Your task to perform on an android device: open chrome privacy settings Image 0: 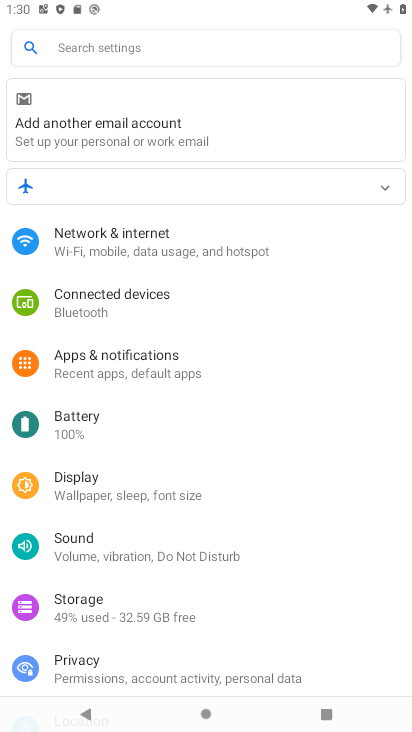
Step 0: press home button
Your task to perform on an android device: open chrome privacy settings Image 1: 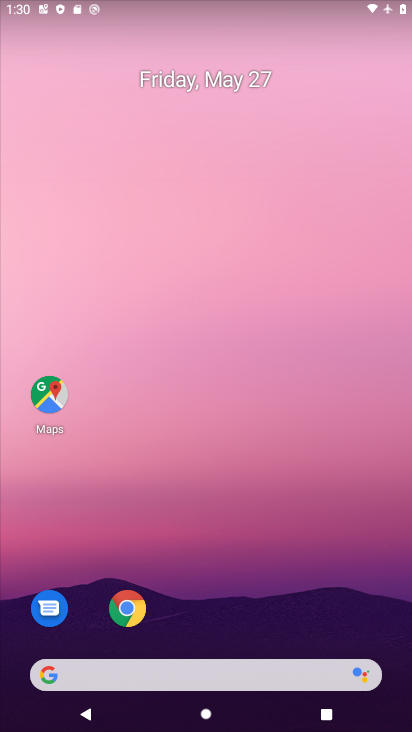
Step 1: drag from (166, 671) to (303, 154)
Your task to perform on an android device: open chrome privacy settings Image 2: 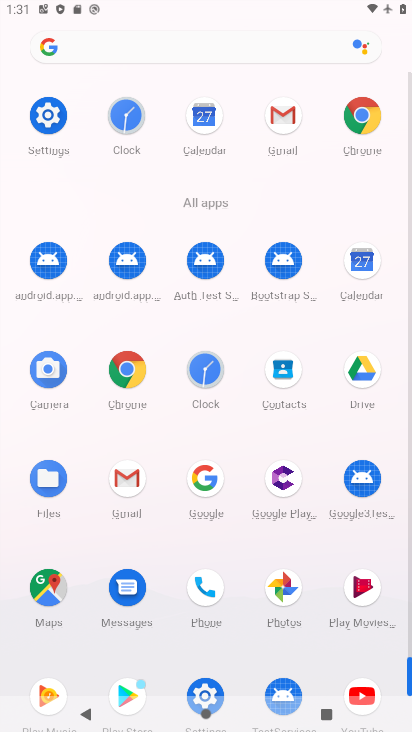
Step 2: click (356, 119)
Your task to perform on an android device: open chrome privacy settings Image 3: 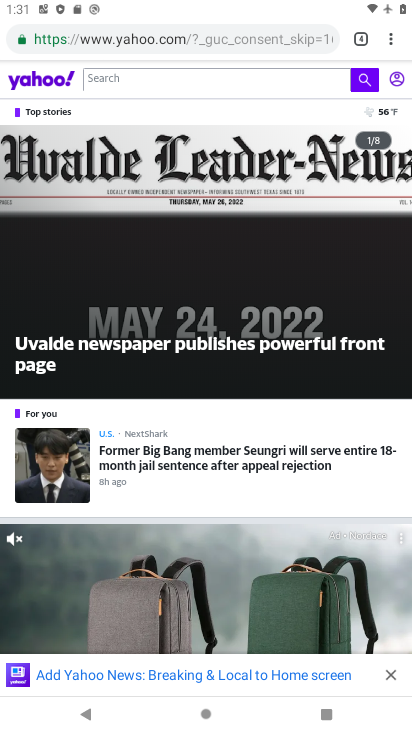
Step 3: drag from (391, 42) to (285, 477)
Your task to perform on an android device: open chrome privacy settings Image 4: 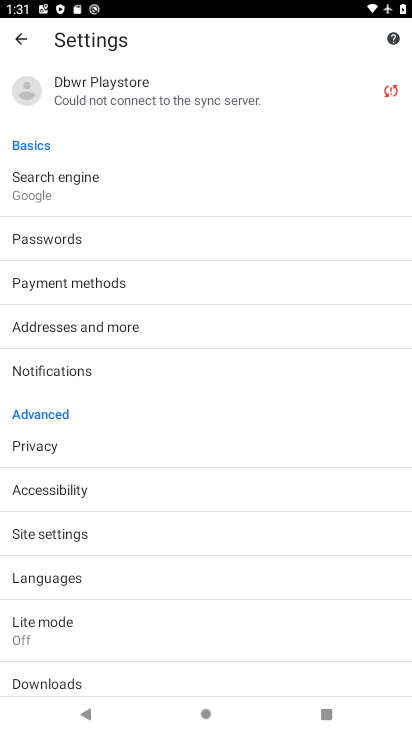
Step 4: click (37, 446)
Your task to perform on an android device: open chrome privacy settings Image 5: 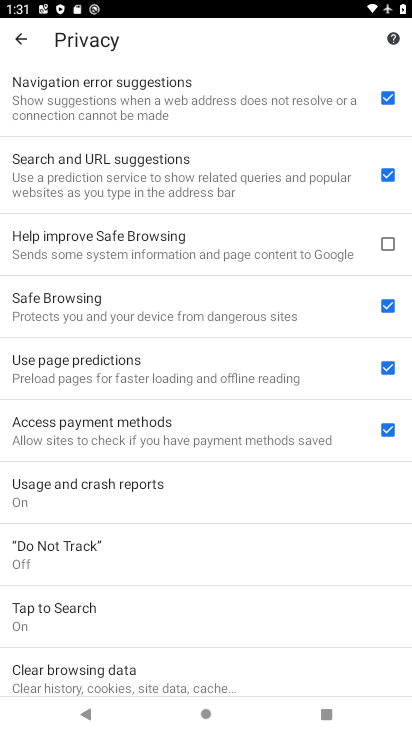
Step 5: task complete